Your task to perform on an android device: all mails in gmail Image 0: 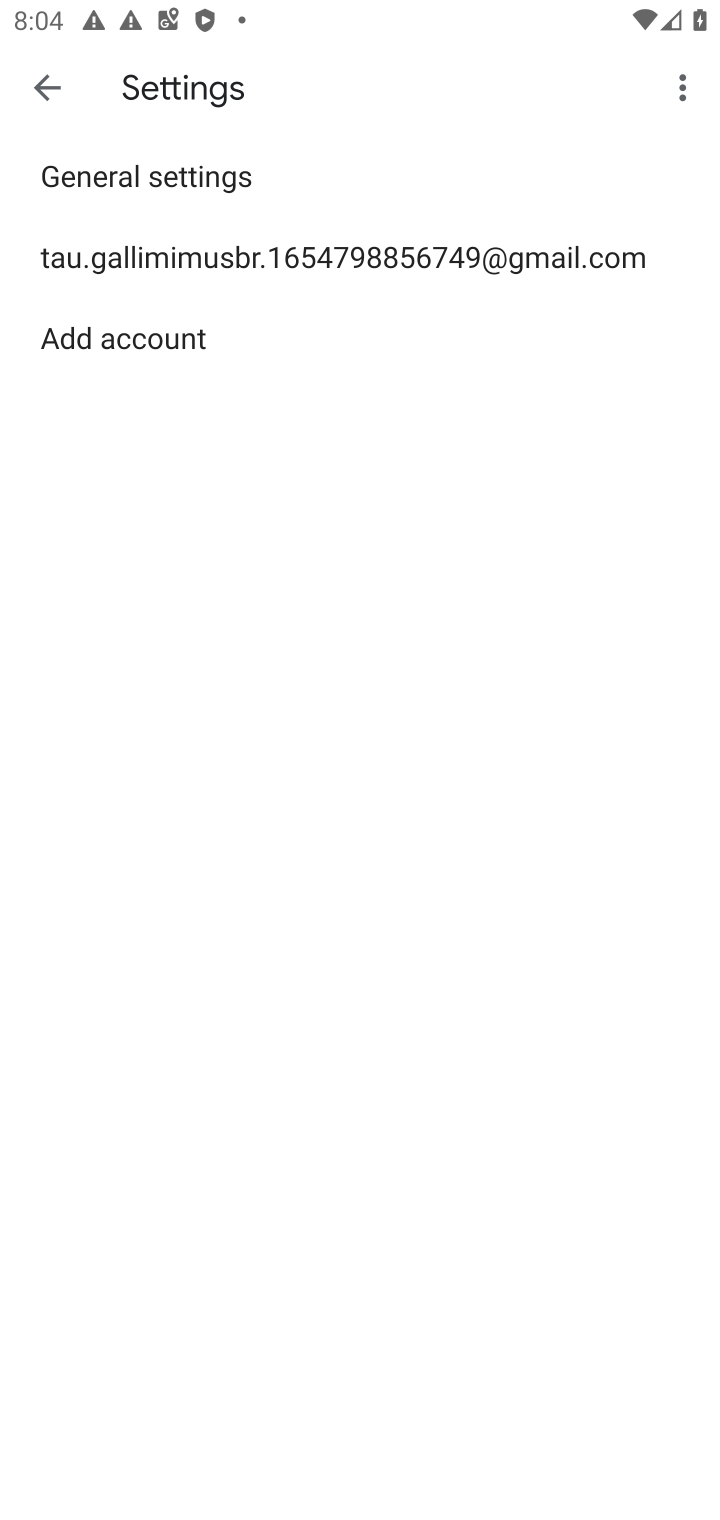
Step 0: press home button
Your task to perform on an android device: all mails in gmail Image 1: 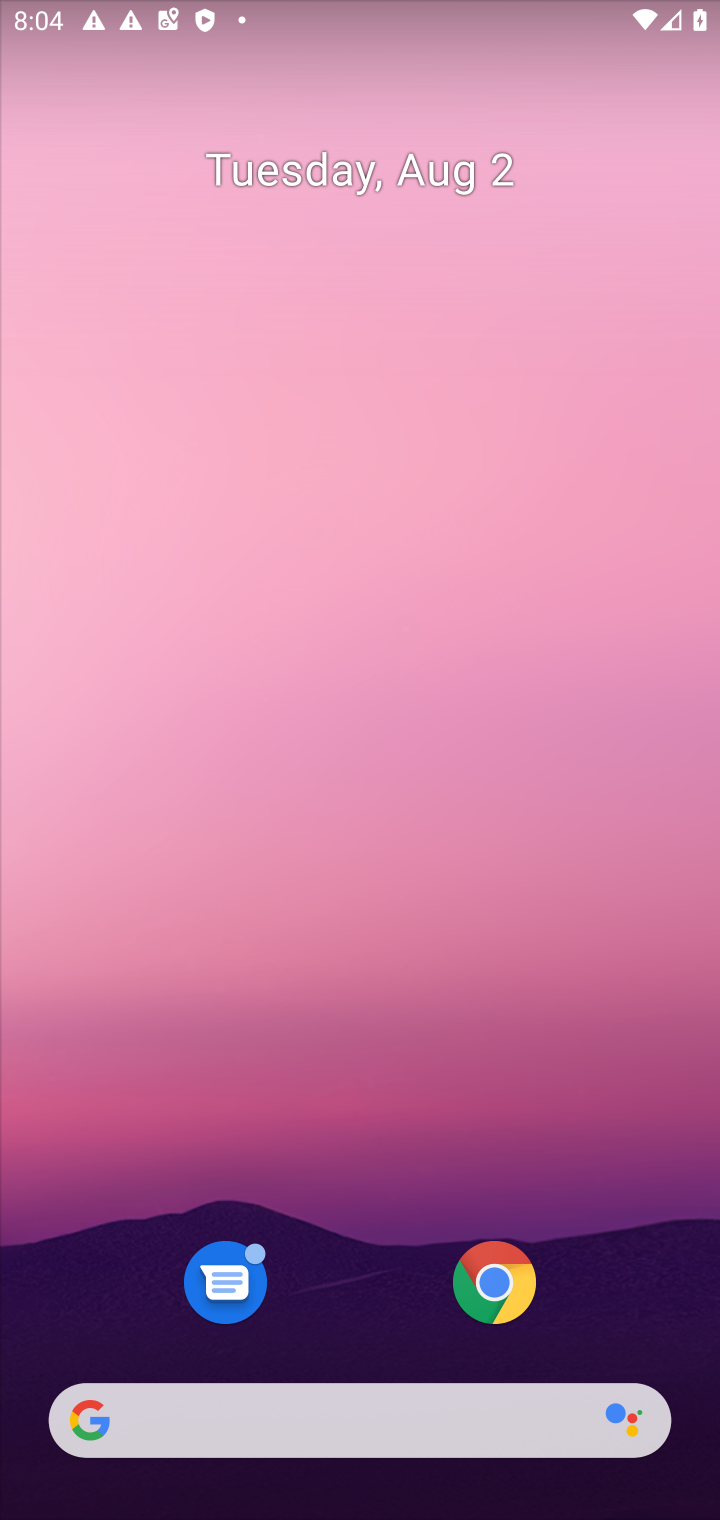
Step 1: drag from (390, 1353) to (307, 11)
Your task to perform on an android device: all mails in gmail Image 2: 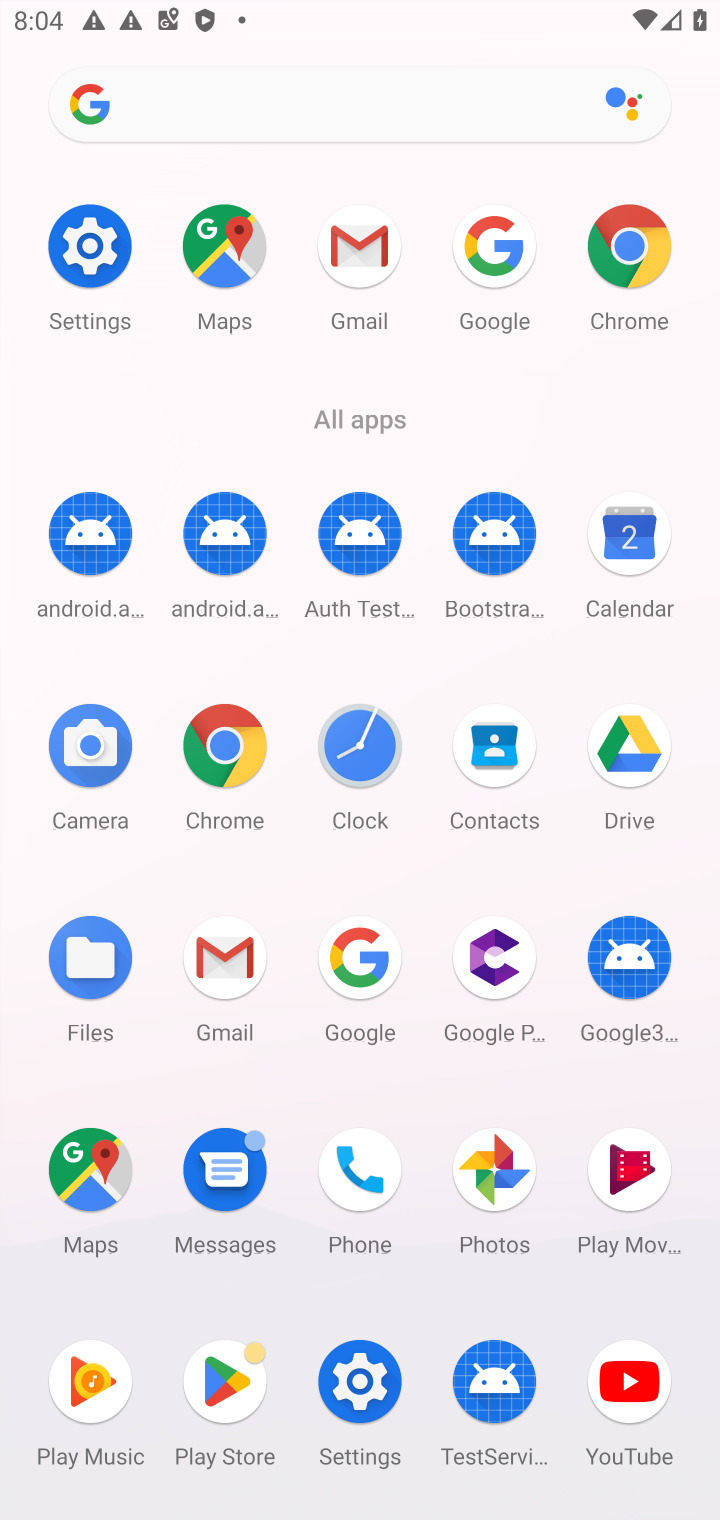
Step 2: click (220, 992)
Your task to perform on an android device: all mails in gmail Image 3: 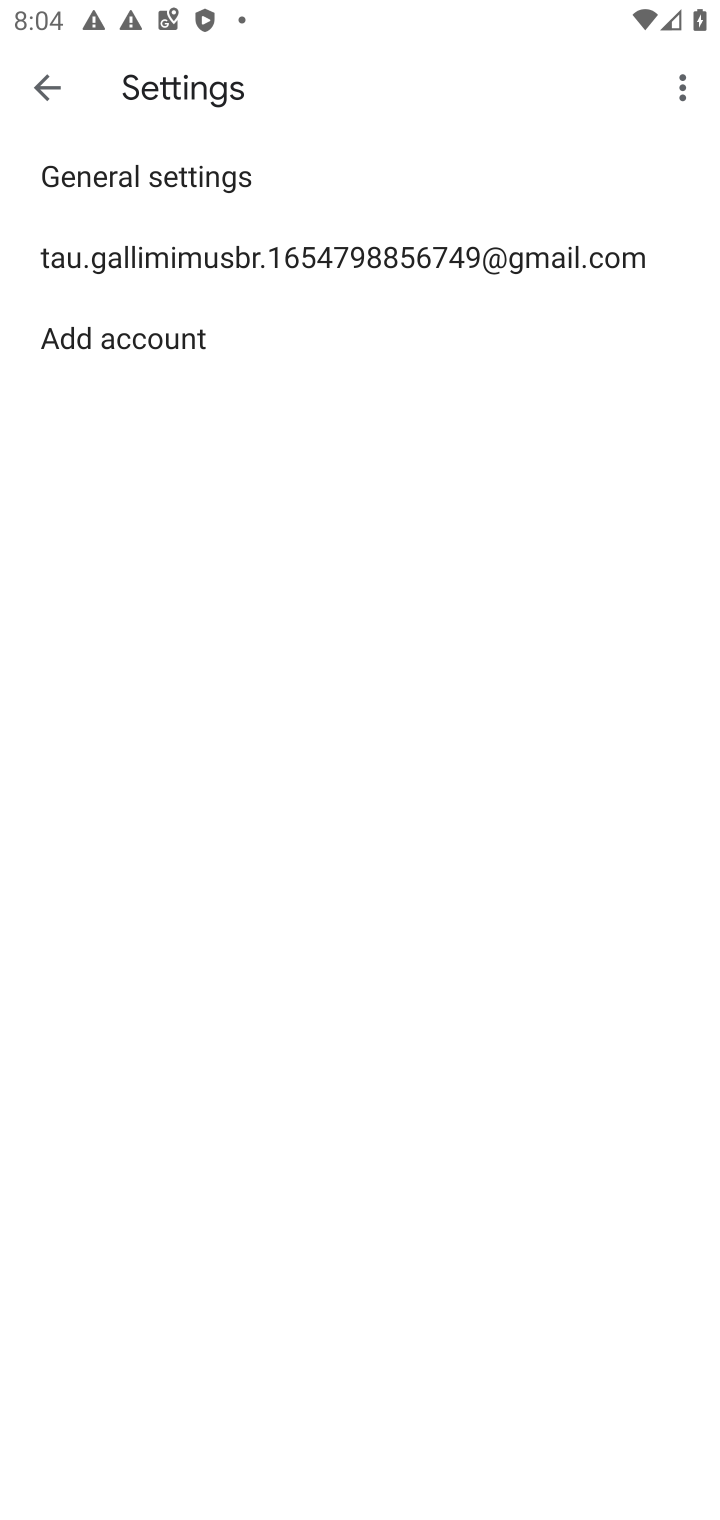
Step 3: click (100, 85)
Your task to perform on an android device: all mails in gmail Image 4: 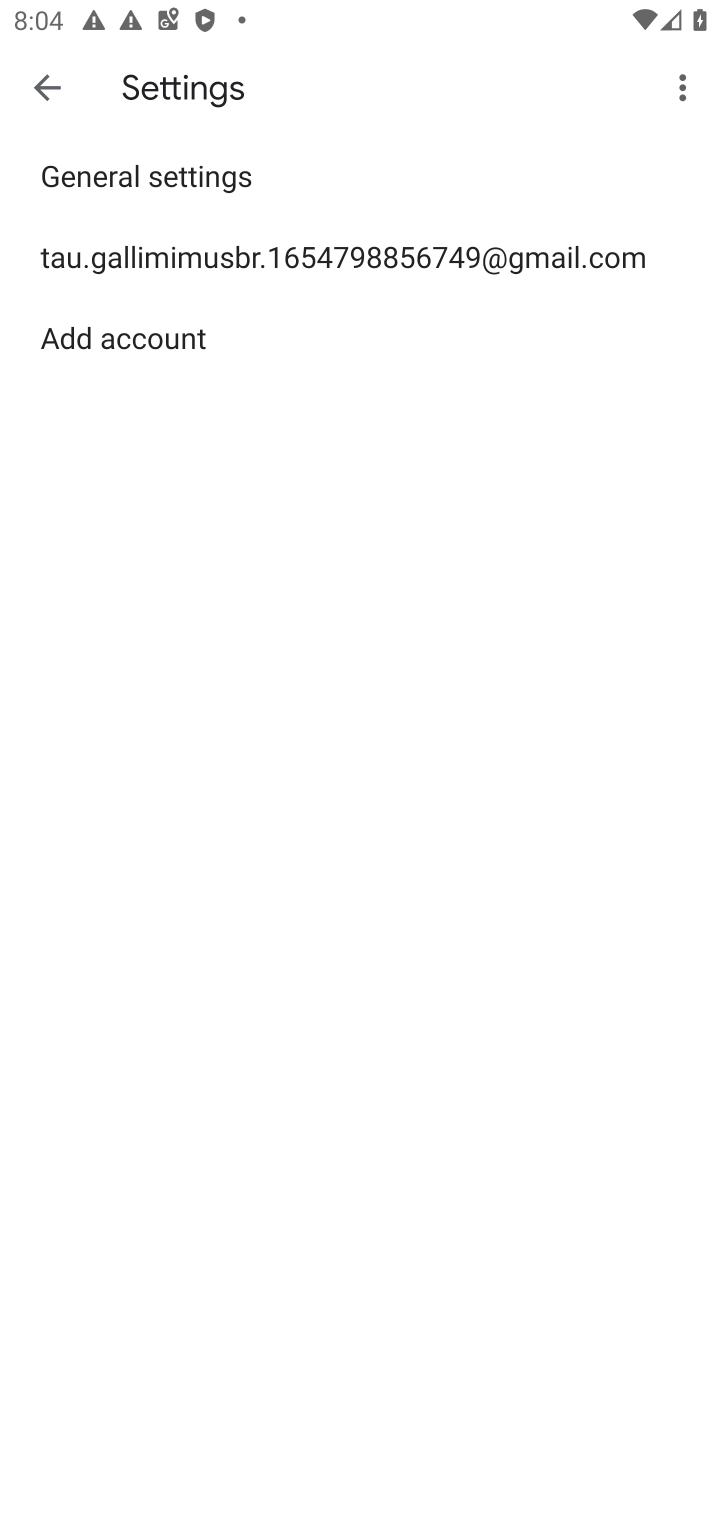
Step 4: click (46, 99)
Your task to perform on an android device: all mails in gmail Image 5: 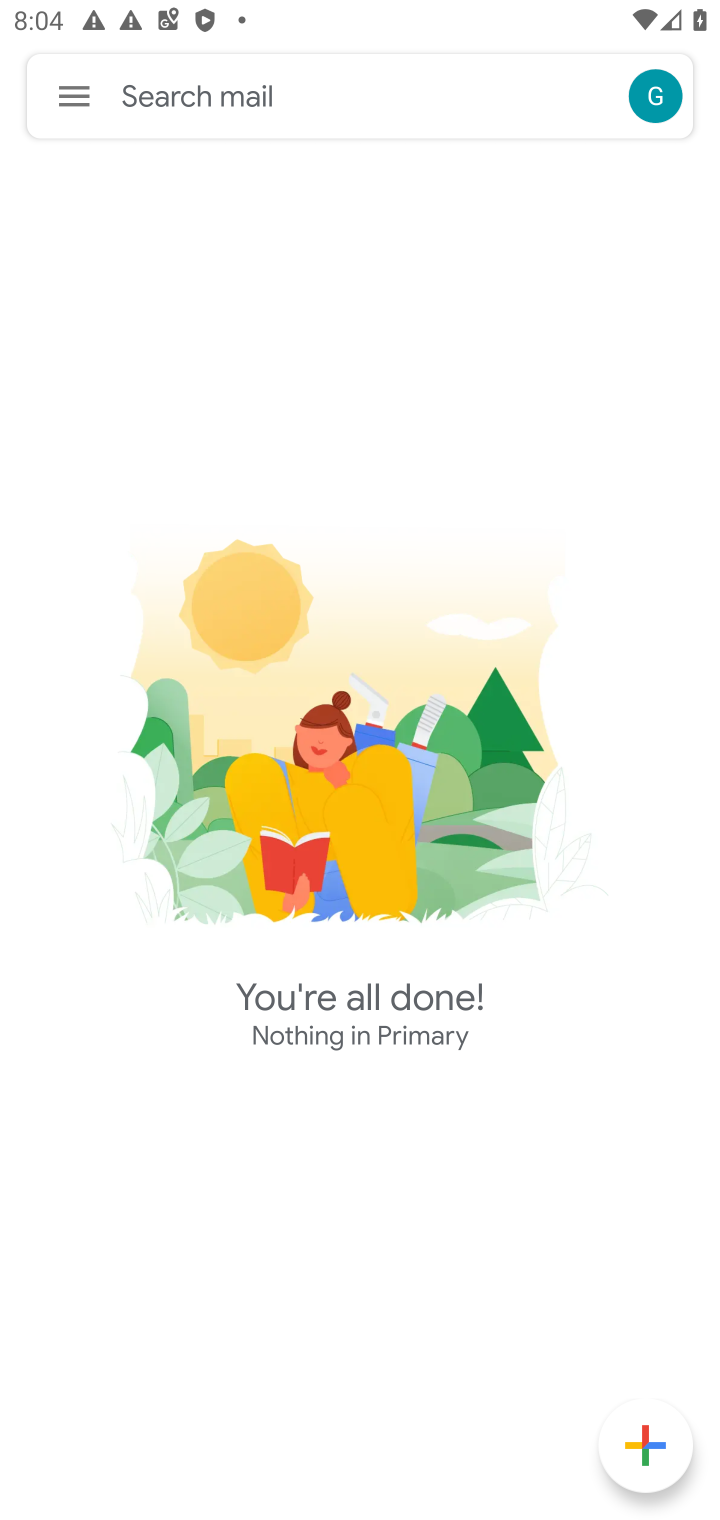
Step 5: click (53, 105)
Your task to perform on an android device: all mails in gmail Image 6: 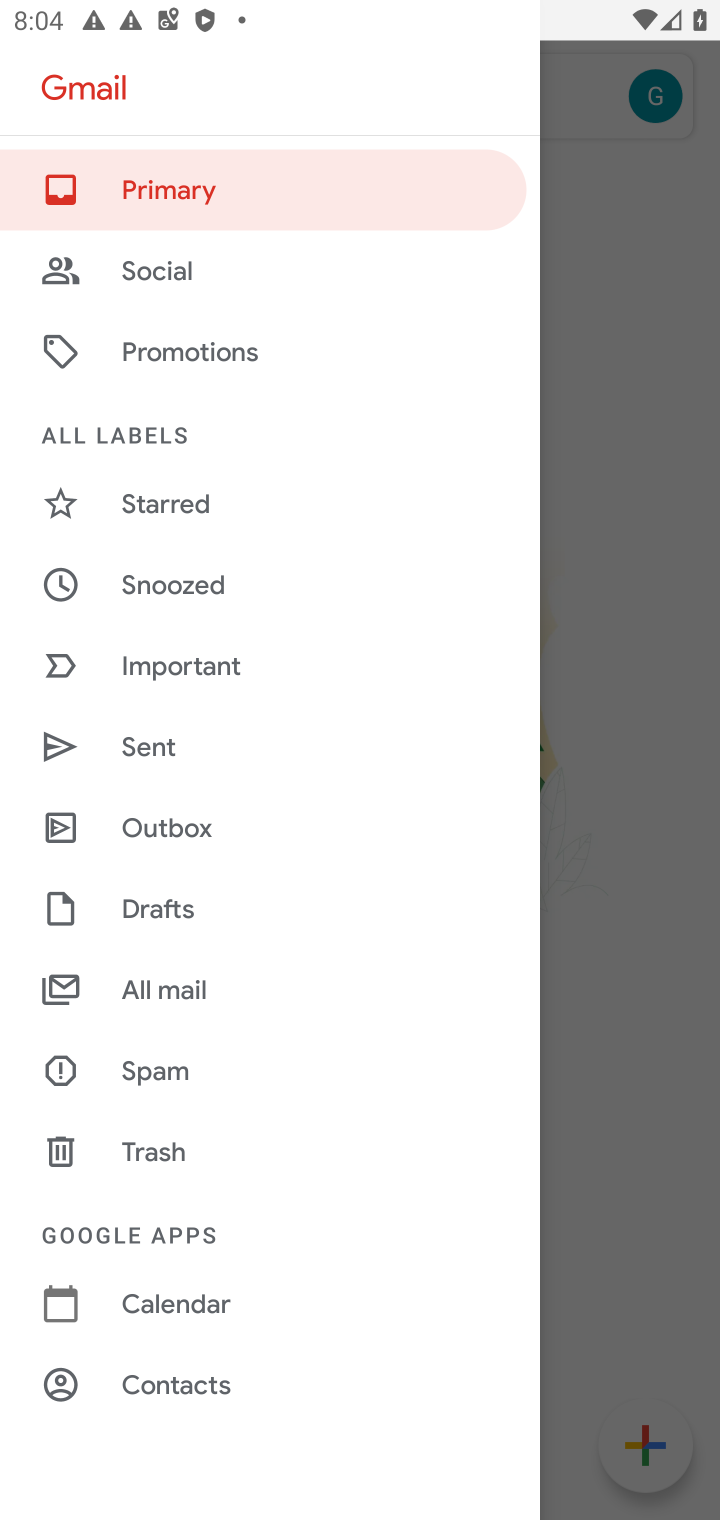
Step 6: click (169, 979)
Your task to perform on an android device: all mails in gmail Image 7: 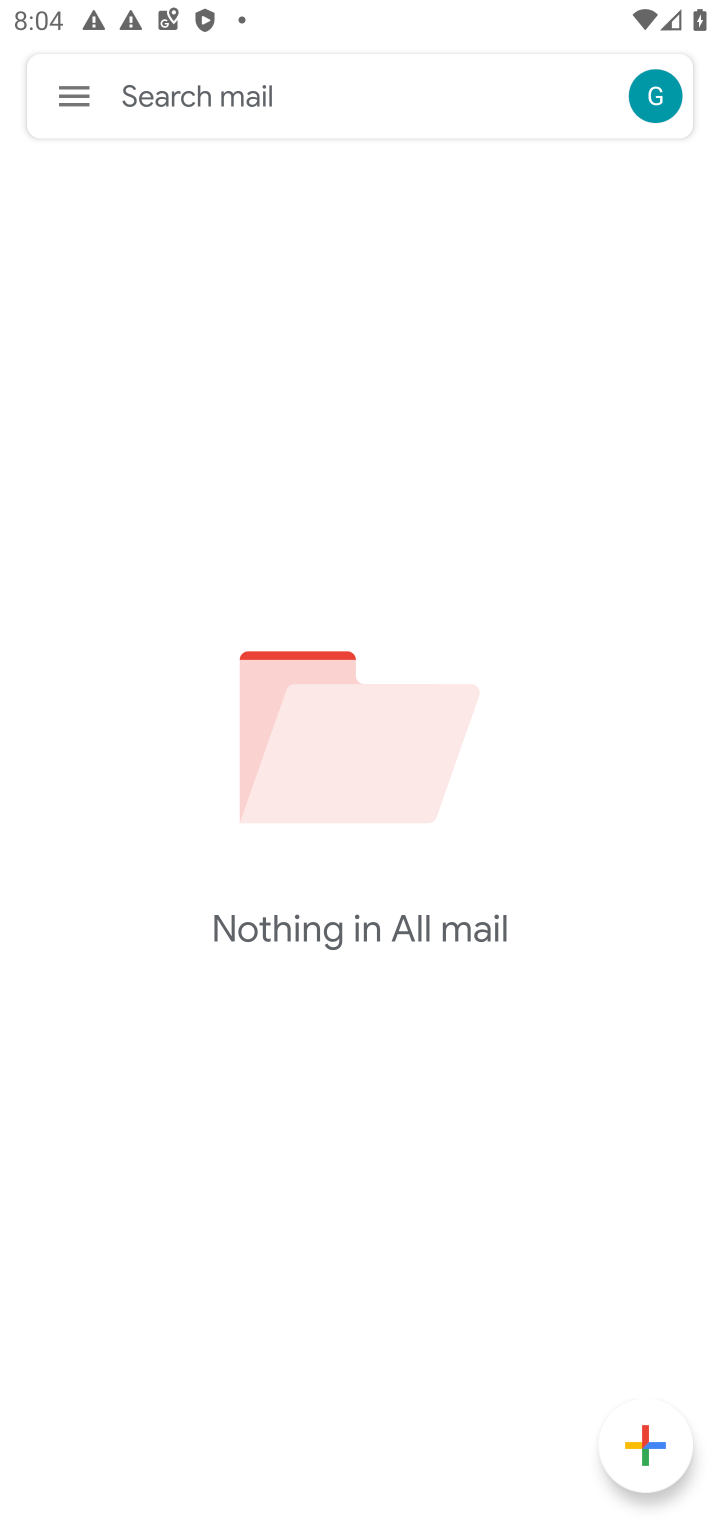
Step 7: task complete